Your task to perform on an android device: Do I have any events today? Image 0: 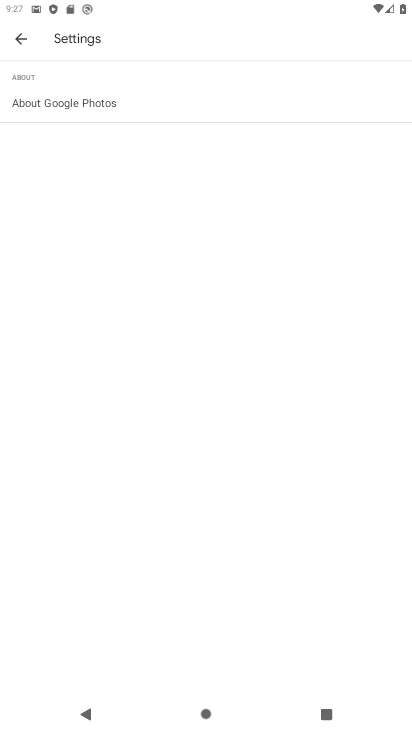
Step 0: press back button
Your task to perform on an android device: Do I have any events today? Image 1: 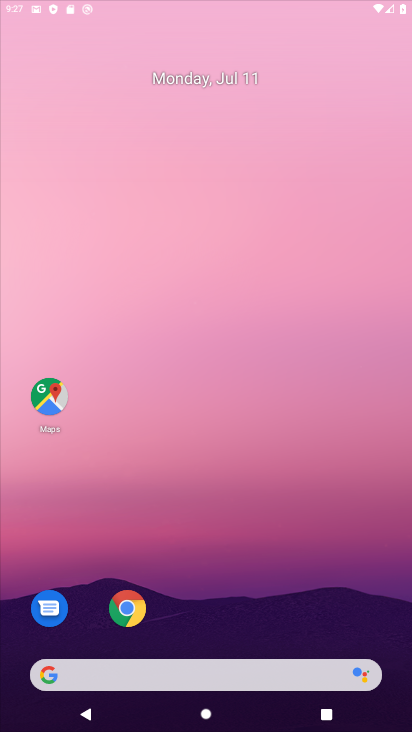
Step 1: press home button
Your task to perform on an android device: Do I have any events today? Image 2: 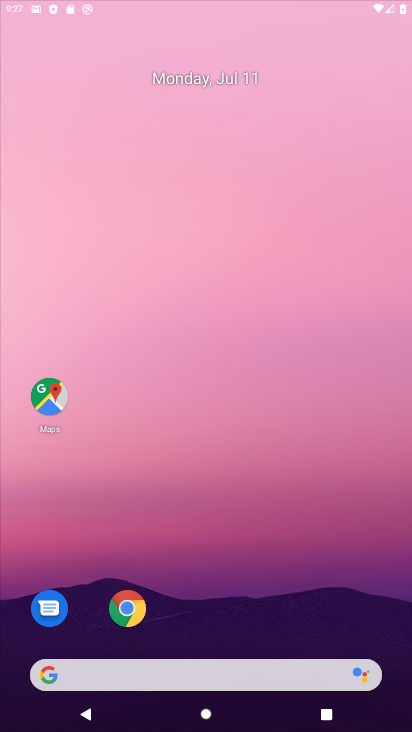
Step 2: click (197, 127)
Your task to perform on an android device: Do I have any events today? Image 3: 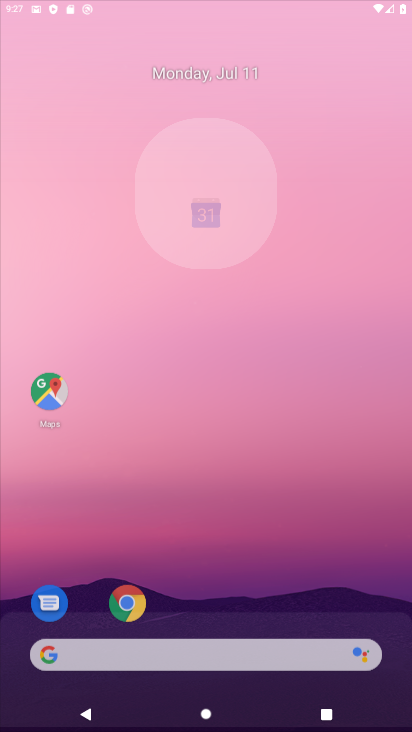
Step 3: drag from (259, 536) to (215, 163)
Your task to perform on an android device: Do I have any events today? Image 4: 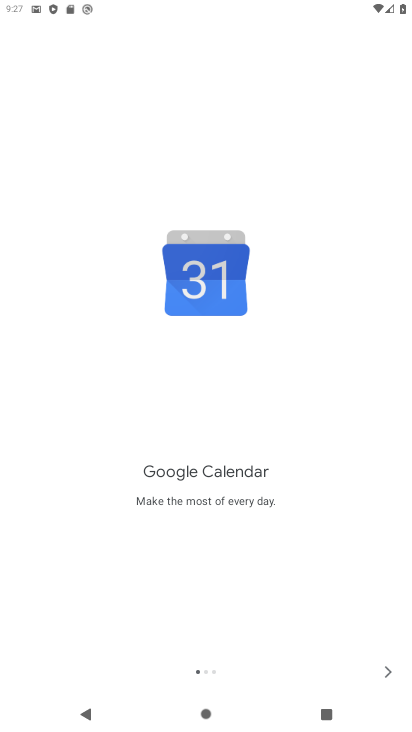
Step 4: click (388, 667)
Your task to perform on an android device: Do I have any events today? Image 5: 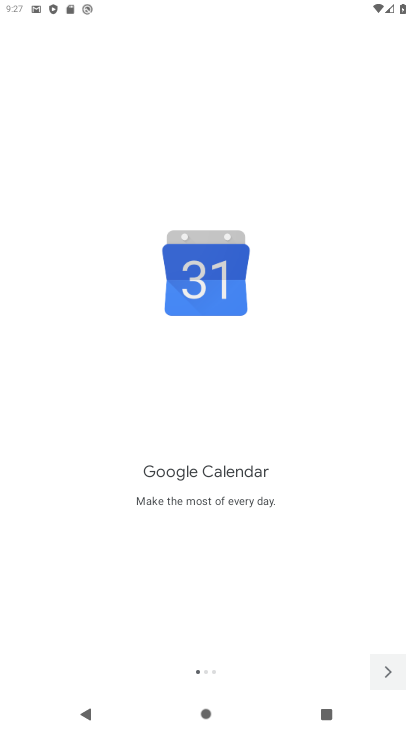
Step 5: click (388, 665)
Your task to perform on an android device: Do I have any events today? Image 6: 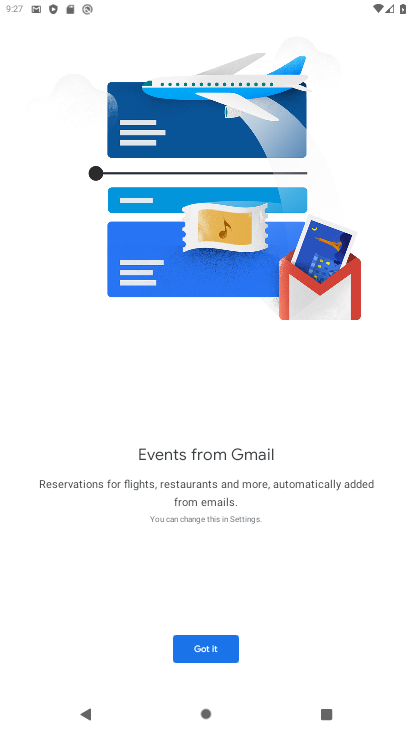
Step 6: click (221, 639)
Your task to perform on an android device: Do I have any events today? Image 7: 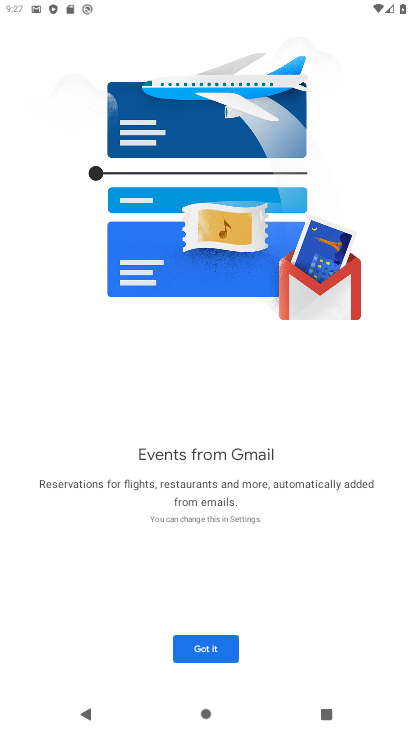
Step 7: click (214, 634)
Your task to perform on an android device: Do I have any events today? Image 8: 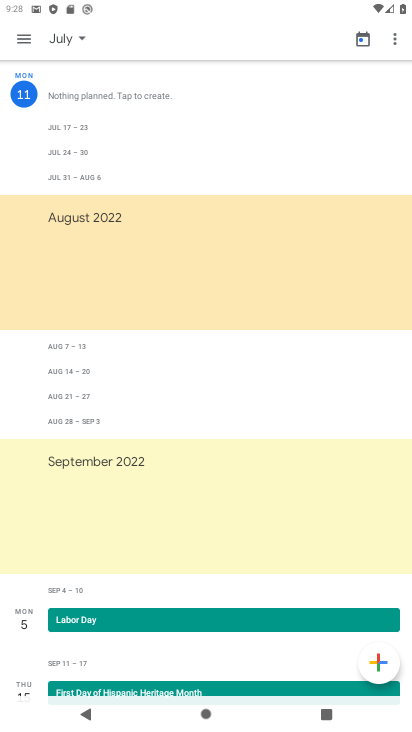
Step 8: click (79, 44)
Your task to perform on an android device: Do I have any events today? Image 9: 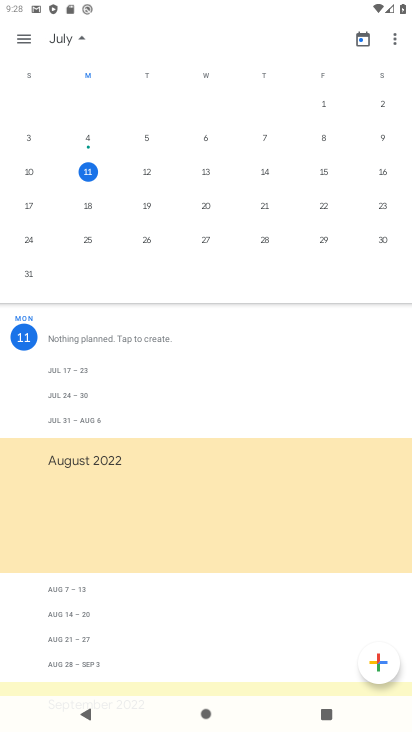
Step 9: click (146, 166)
Your task to perform on an android device: Do I have any events today? Image 10: 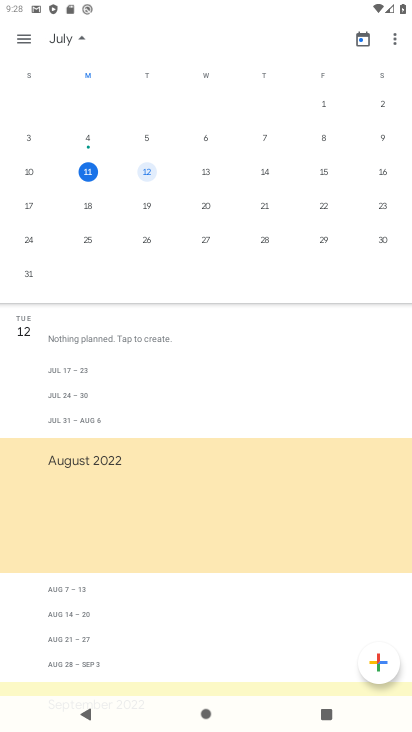
Step 10: task complete